Your task to perform on an android device: Open Android settings Image 0: 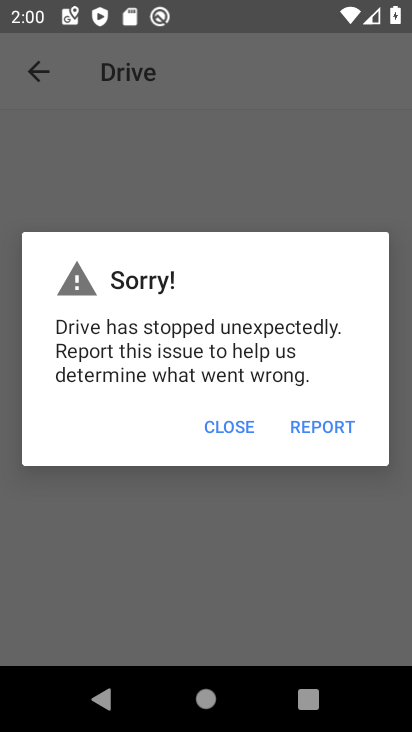
Step 0: press home button
Your task to perform on an android device: Open Android settings Image 1: 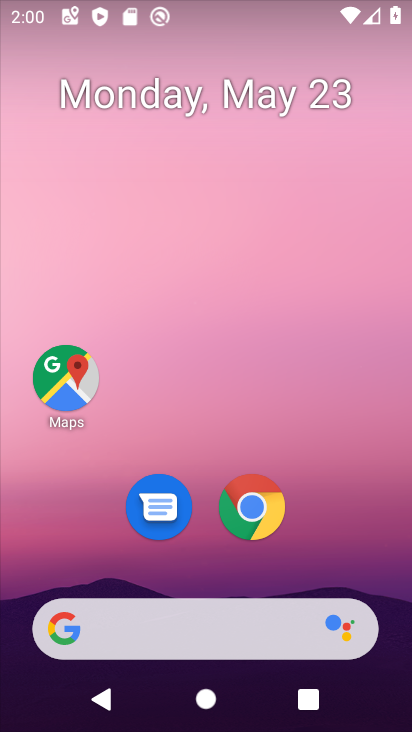
Step 1: drag from (234, 725) to (218, 239)
Your task to perform on an android device: Open Android settings Image 2: 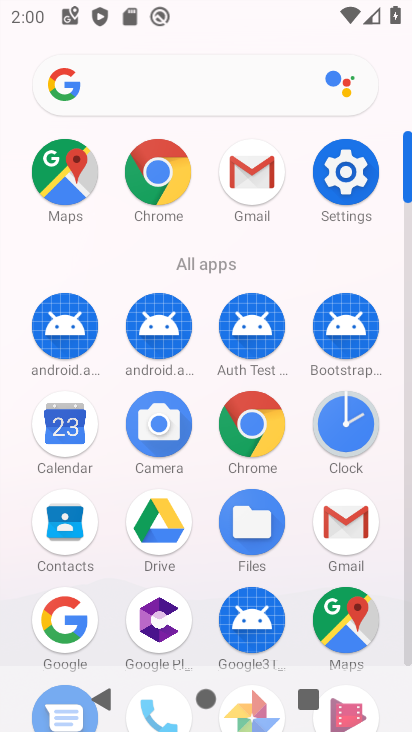
Step 2: click (348, 174)
Your task to perform on an android device: Open Android settings Image 3: 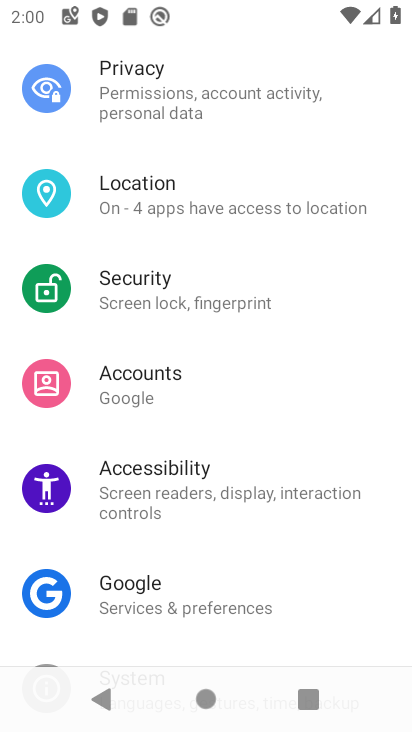
Step 3: task complete